Your task to perform on an android device: open app "Chime – Mobile Banking" (install if not already installed) Image 0: 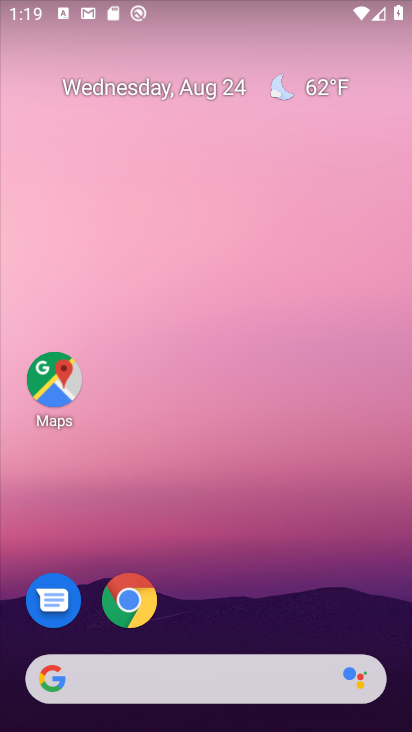
Step 0: drag from (332, 634) to (271, 9)
Your task to perform on an android device: open app "Chime – Mobile Banking" (install if not already installed) Image 1: 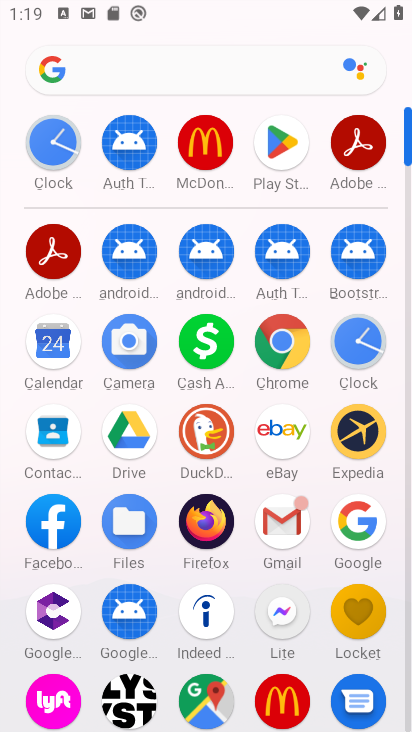
Step 1: click (267, 155)
Your task to perform on an android device: open app "Chime – Mobile Banking" (install if not already installed) Image 2: 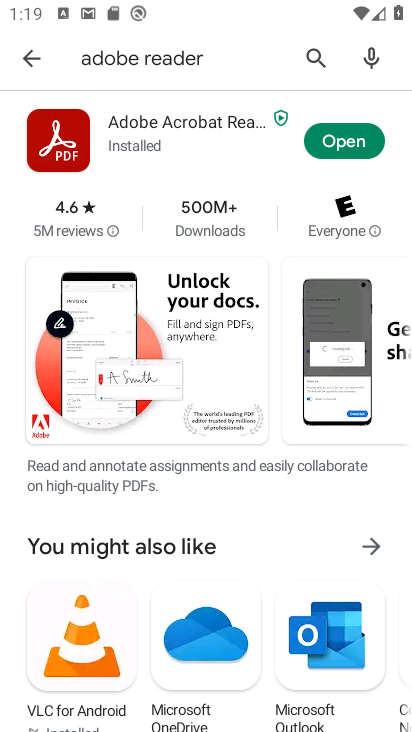
Step 2: click (307, 72)
Your task to perform on an android device: open app "Chime – Mobile Banking" (install if not already installed) Image 3: 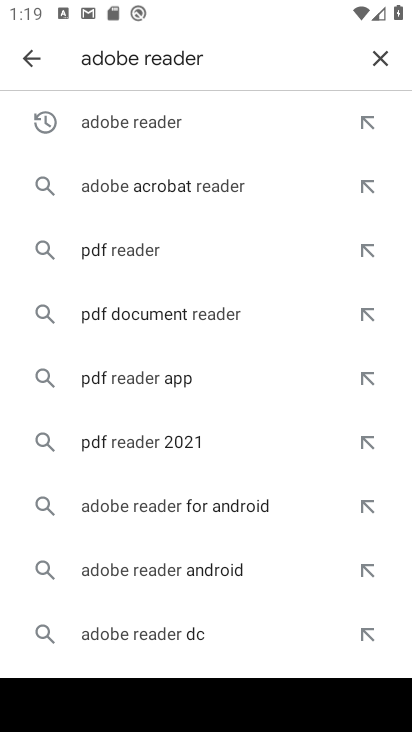
Step 3: click (386, 53)
Your task to perform on an android device: open app "Chime – Mobile Banking" (install if not already installed) Image 4: 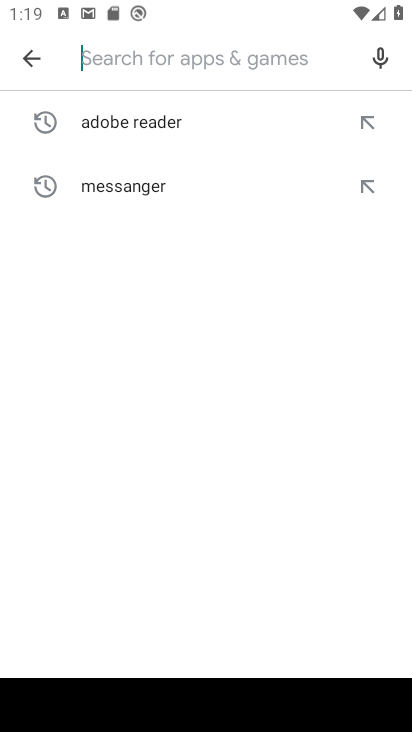
Step 4: type "chimne"
Your task to perform on an android device: open app "Chime – Mobile Banking" (install if not already installed) Image 5: 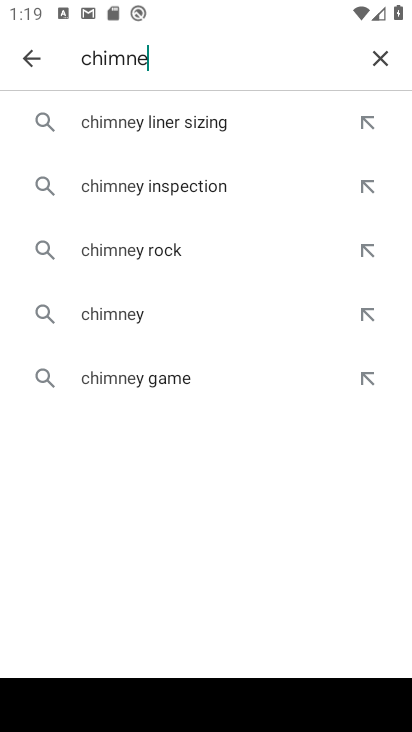
Step 5: click (160, 156)
Your task to perform on an android device: open app "Chime – Mobile Banking" (install if not already installed) Image 6: 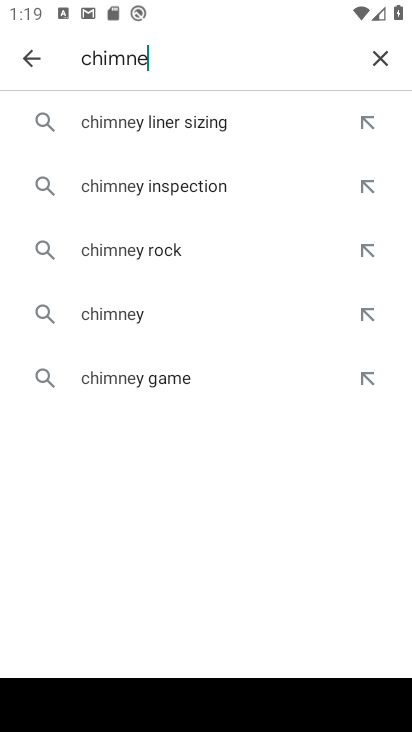
Step 6: click (160, 156)
Your task to perform on an android device: open app "Chime – Mobile Banking" (install if not already installed) Image 7: 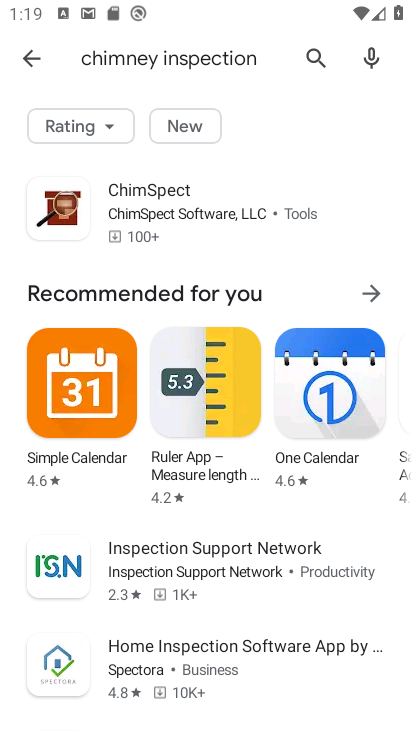
Step 7: task complete